Your task to perform on an android device: Open internet settings Image 0: 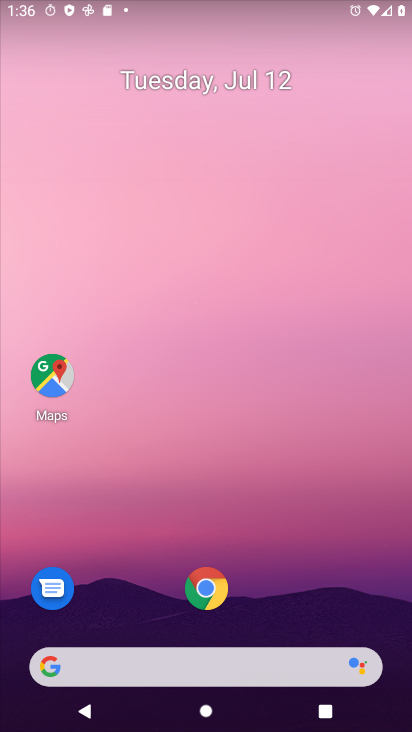
Step 0: drag from (194, 654) to (258, 199)
Your task to perform on an android device: Open internet settings Image 1: 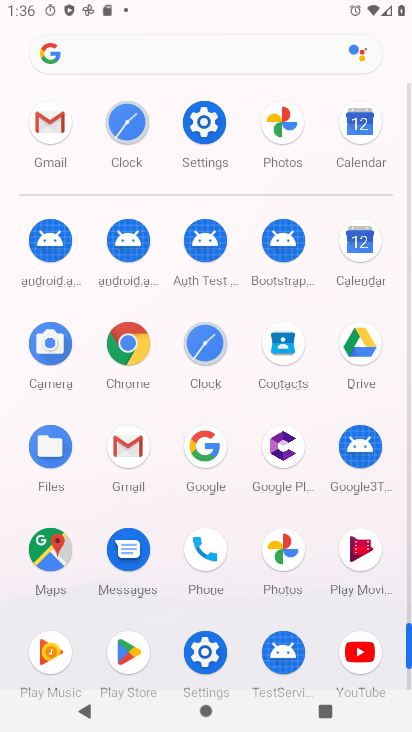
Step 1: click (202, 132)
Your task to perform on an android device: Open internet settings Image 2: 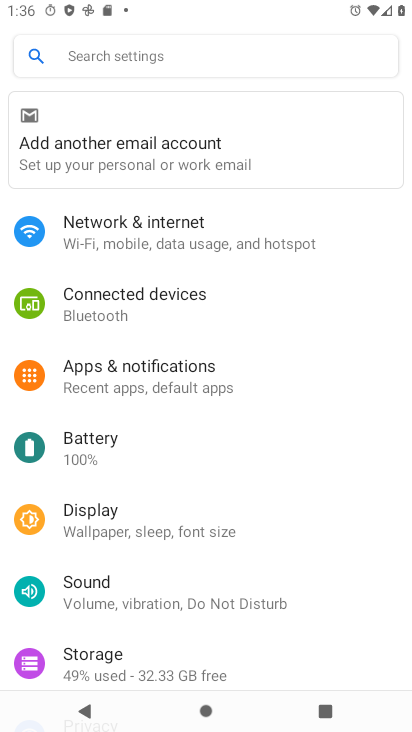
Step 2: click (131, 237)
Your task to perform on an android device: Open internet settings Image 3: 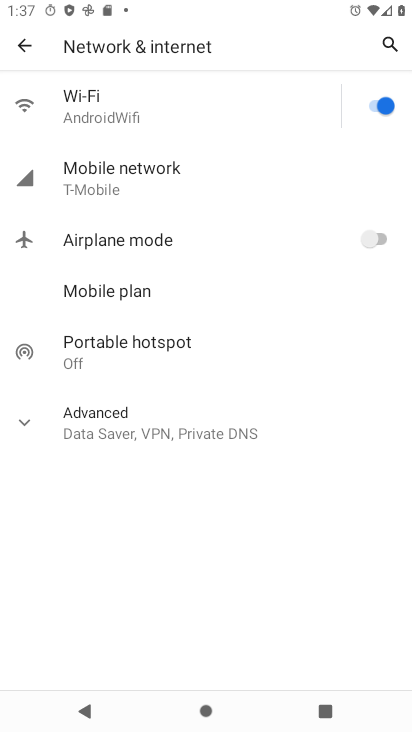
Step 3: task complete